Your task to perform on an android device: turn on sleep mode Image 0: 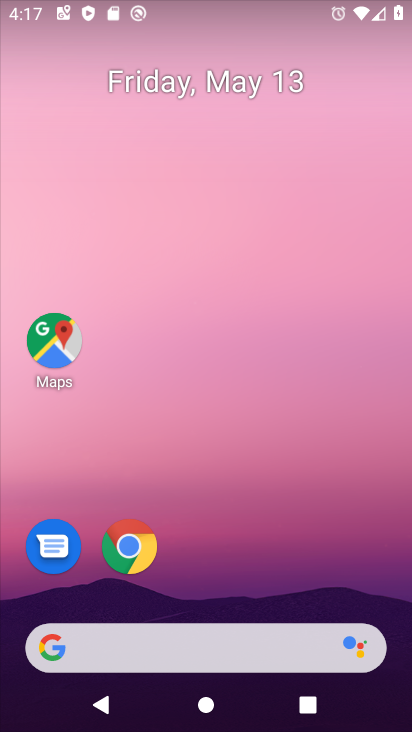
Step 0: drag from (231, 600) to (197, 10)
Your task to perform on an android device: turn on sleep mode Image 1: 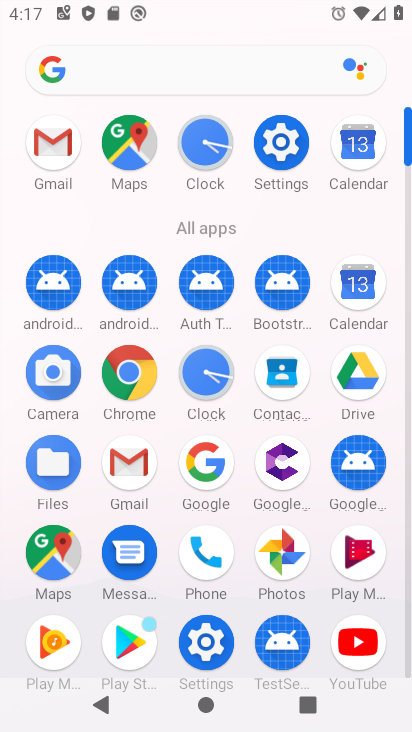
Step 1: click (279, 161)
Your task to perform on an android device: turn on sleep mode Image 2: 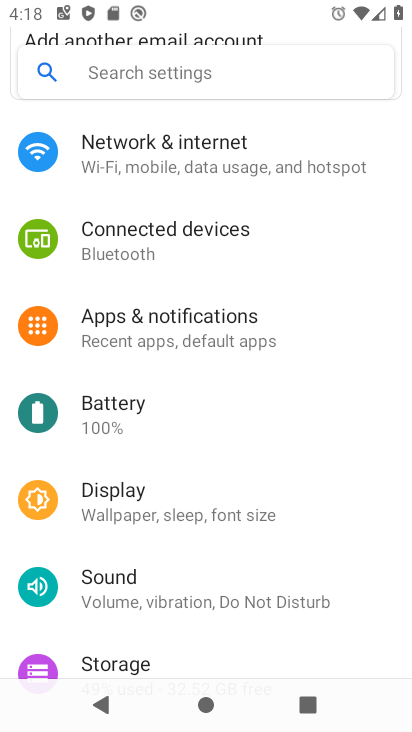
Step 2: click (192, 84)
Your task to perform on an android device: turn on sleep mode Image 3: 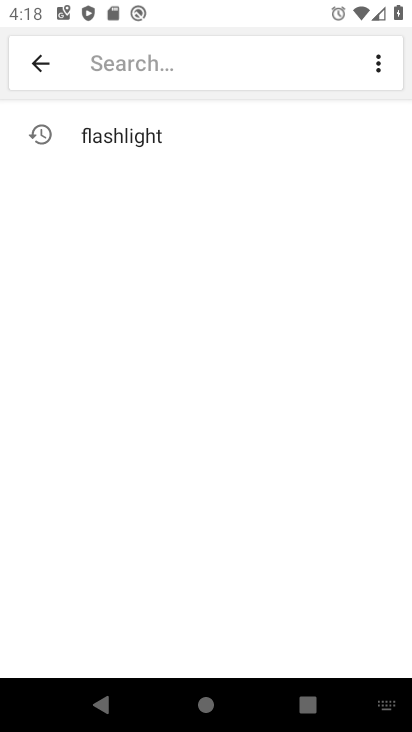
Step 3: type "sleep mode"
Your task to perform on an android device: turn on sleep mode Image 4: 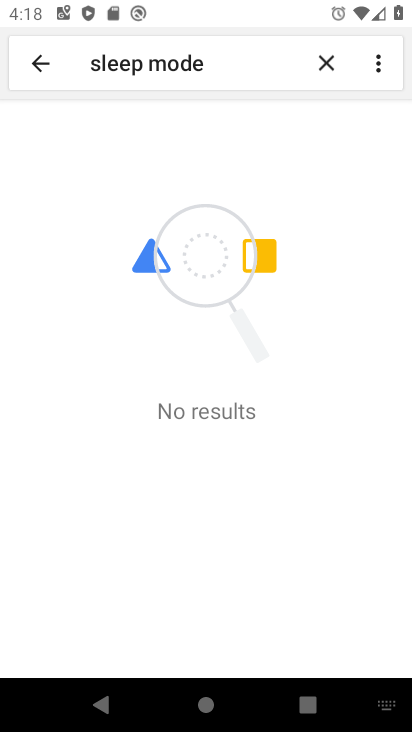
Step 4: task complete